Your task to perform on an android device: Show me popular games on the Play Store Image 0: 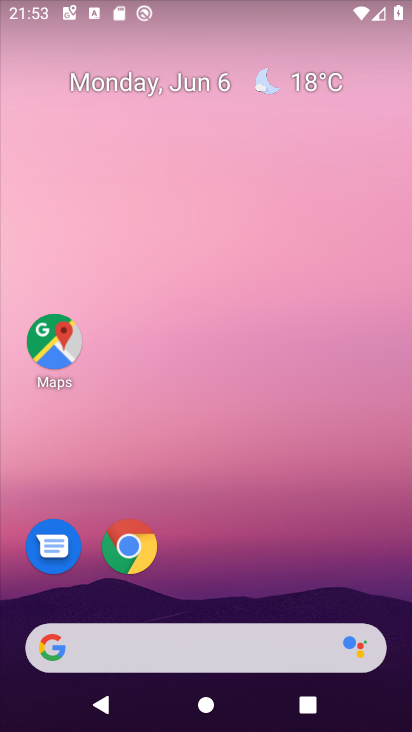
Step 0: drag from (362, 596) to (270, 49)
Your task to perform on an android device: Show me popular games on the Play Store Image 1: 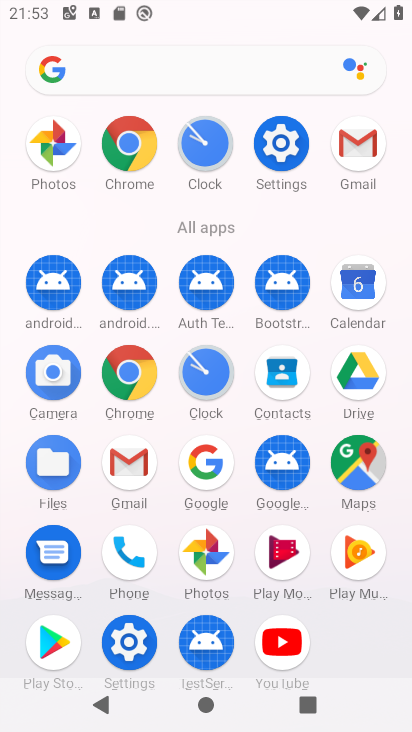
Step 1: click (62, 641)
Your task to perform on an android device: Show me popular games on the Play Store Image 2: 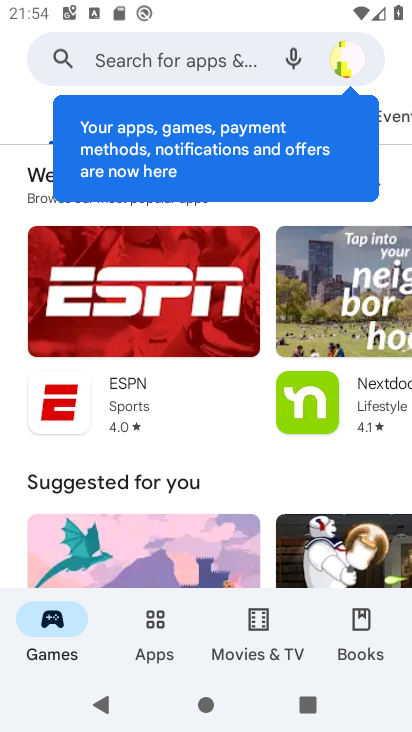
Step 2: drag from (243, 491) to (246, 65)
Your task to perform on an android device: Show me popular games on the Play Store Image 3: 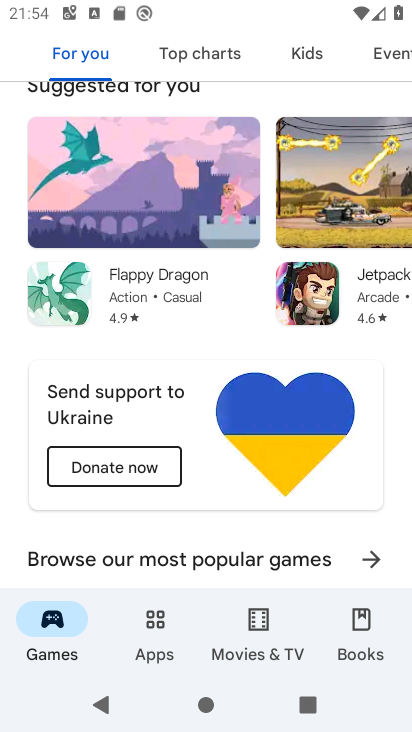
Step 3: drag from (248, 536) to (237, 186)
Your task to perform on an android device: Show me popular games on the Play Store Image 4: 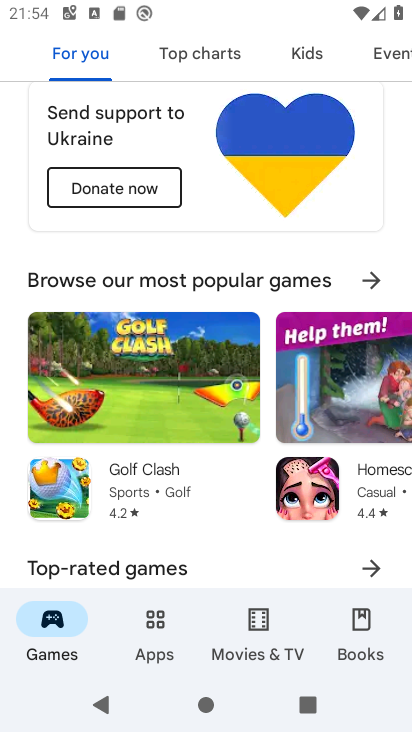
Step 4: click (372, 279)
Your task to perform on an android device: Show me popular games on the Play Store Image 5: 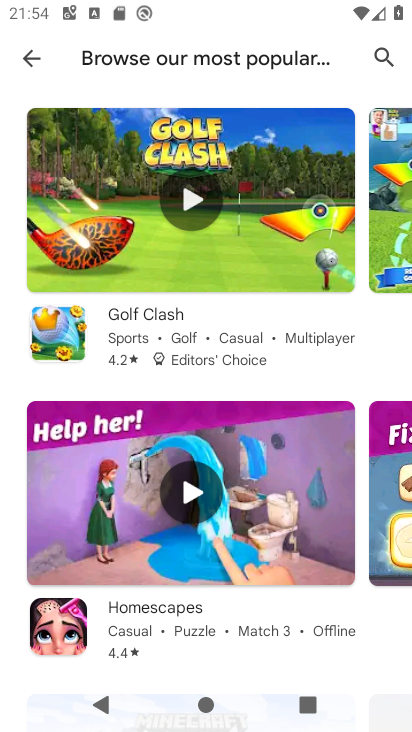
Step 5: task complete